Your task to perform on an android device: Find coffee shops on Maps Image 0: 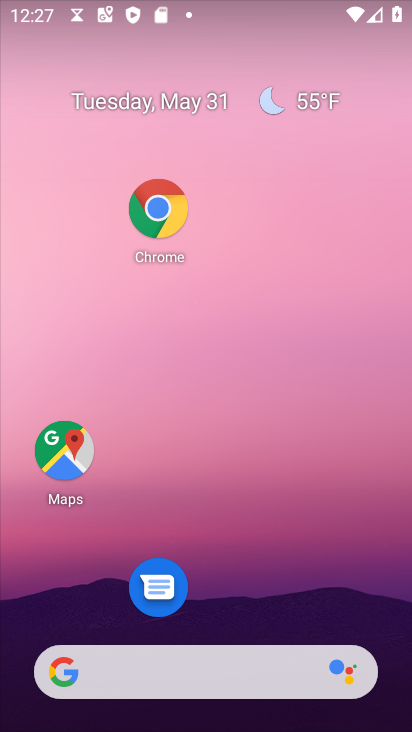
Step 0: click (46, 500)
Your task to perform on an android device: Find coffee shops on Maps Image 1: 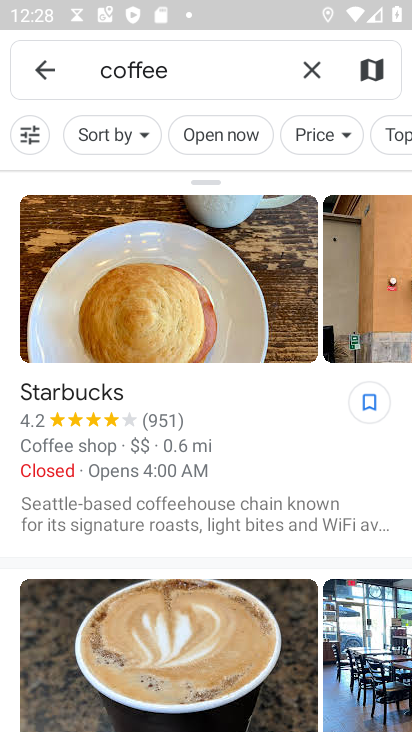
Step 1: task complete